Your task to perform on an android device: Show me recent news Image 0: 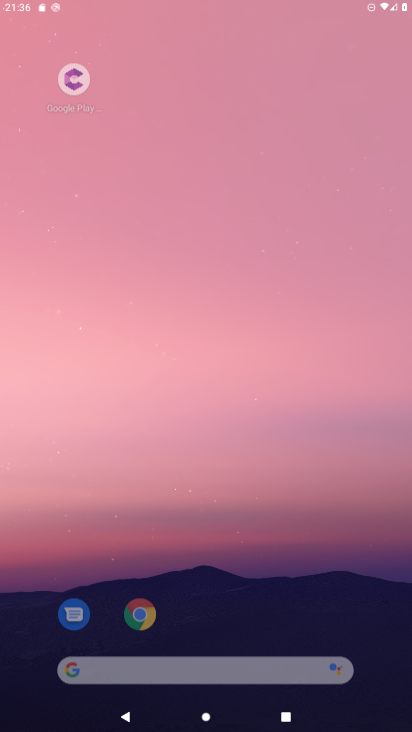
Step 0: click (318, 214)
Your task to perform on an android device: Show me recent news Image 1: 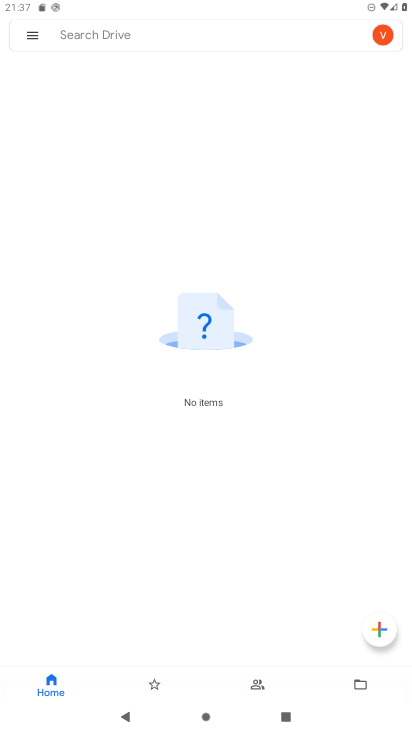
Step 1: press home button
Your task to perform on an android device: Show me recent news Image 2: 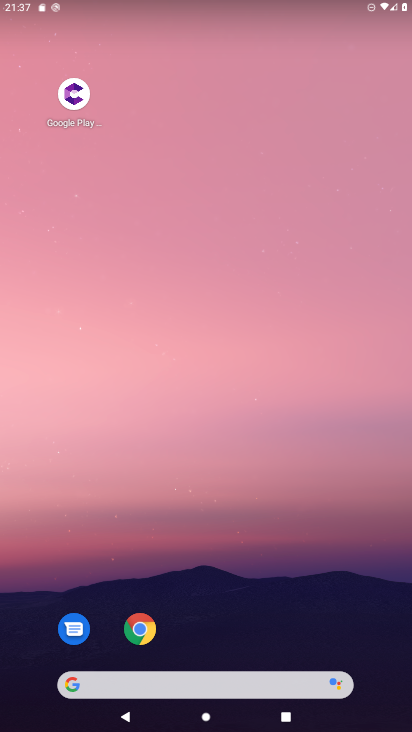
Step 2: drag from (231, 628) to (226, 207)
Your task to perform on an android device: Show me recent news Image 3: 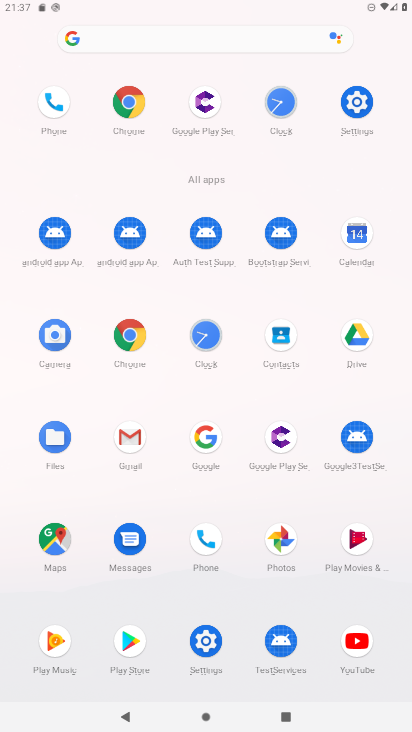
Step 3: click (126, 101)
Your task to perform on an android device: Show me recent news Image 4: 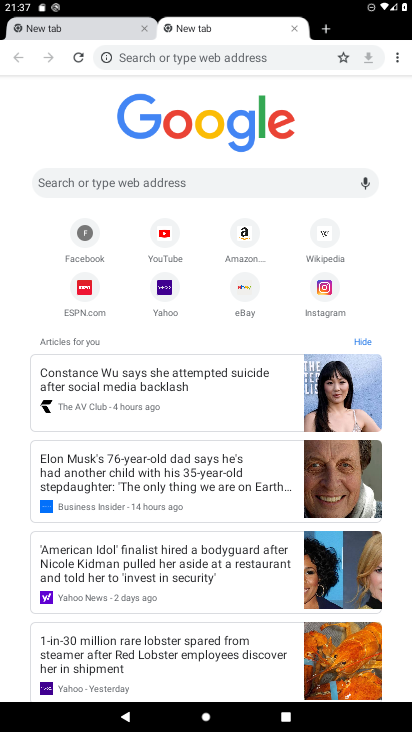
Step 4: click (227, 183)
Your task to perform on an android device: Show me recent news Image 5: 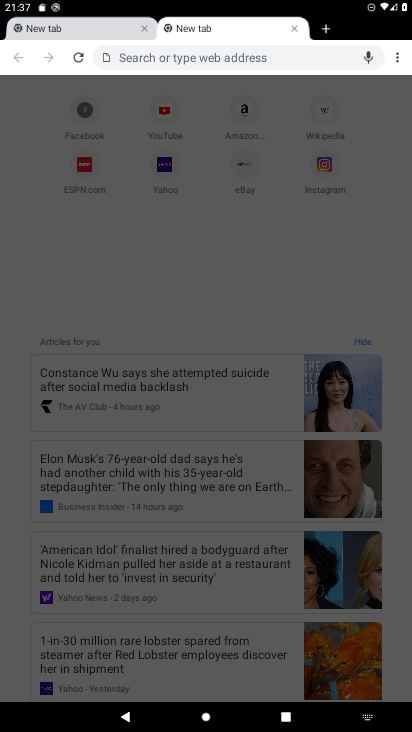
Step 5: type "Show me recent news "
Your task to perform on an android device: Show me recent news Image 6: 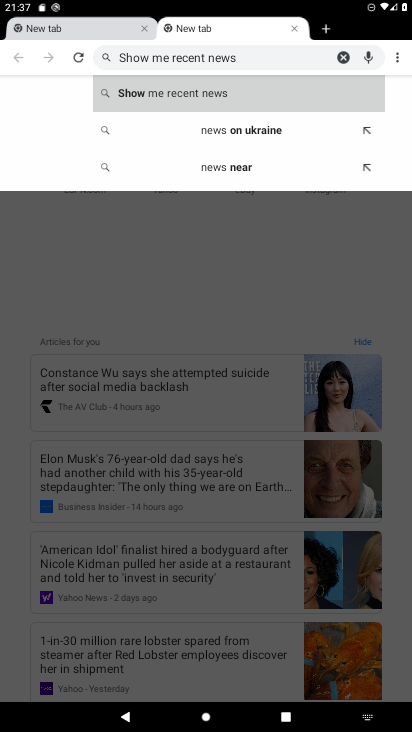
Step 6: click (231, 82)
Your task to perform on an android device: Show me recent news Image 7: 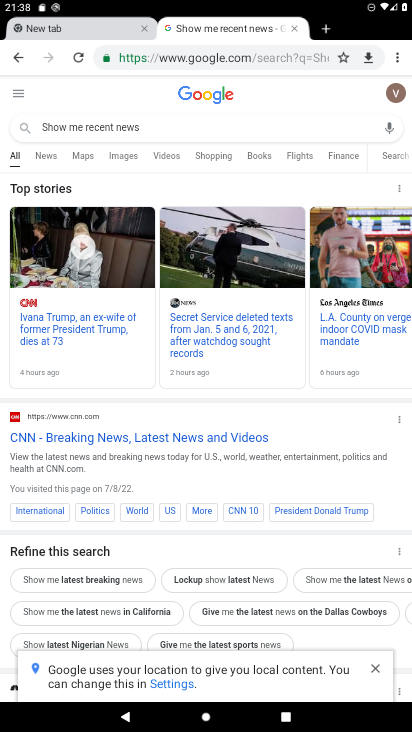
Step 7: task complete